Your task to perform on an android device: Open wifi settings Image 0: 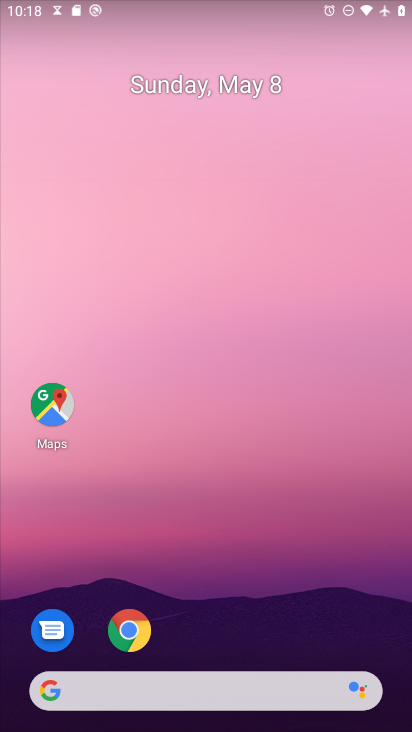
Step 0: drag from (147, 707) to (373, 225)
Your task to perform on an android device: Open wifi settings Image 1: 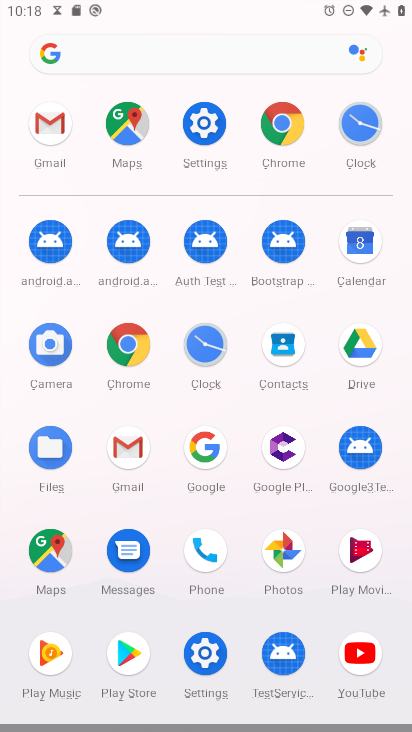
Step 1: click (208, 124)
Your task to perform on an android device: Open wifi settings Image 2: 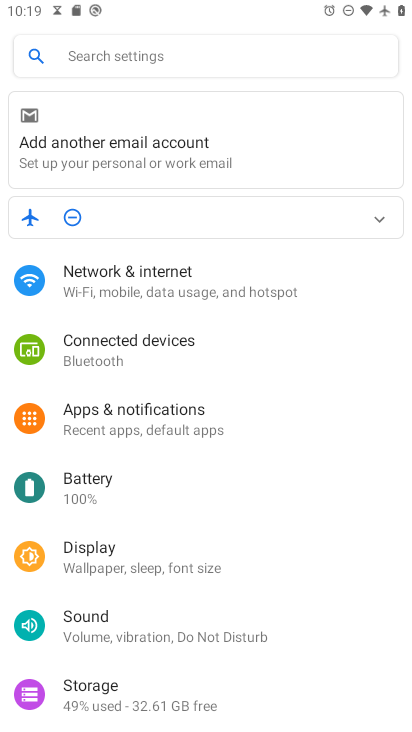
Step 2: click (155, 285)
Your task to perform on an android device: Open wifi settings Image 3: 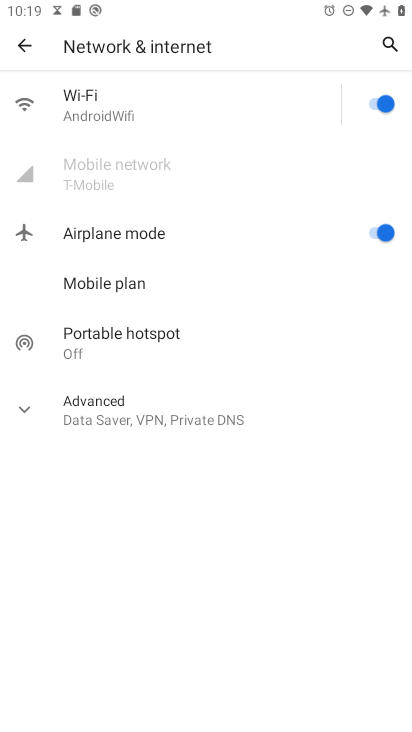
Step 3: click (131, 107)
Your task to perform on an android device: Open wifi settings Image 4: 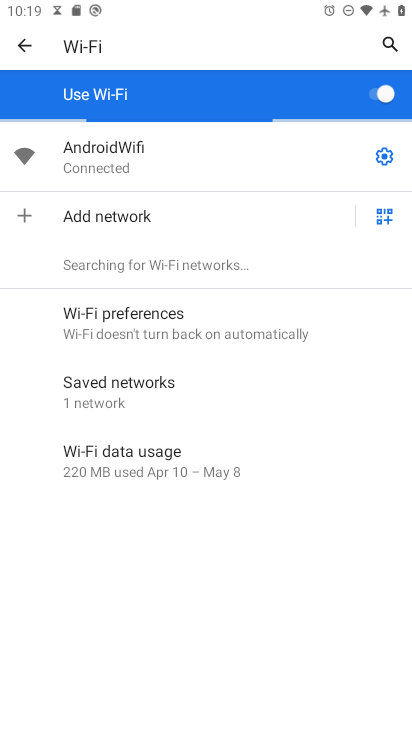
Step 4: task complete